Your task to perform on an android device: turn off notifications in google photos Image 0: 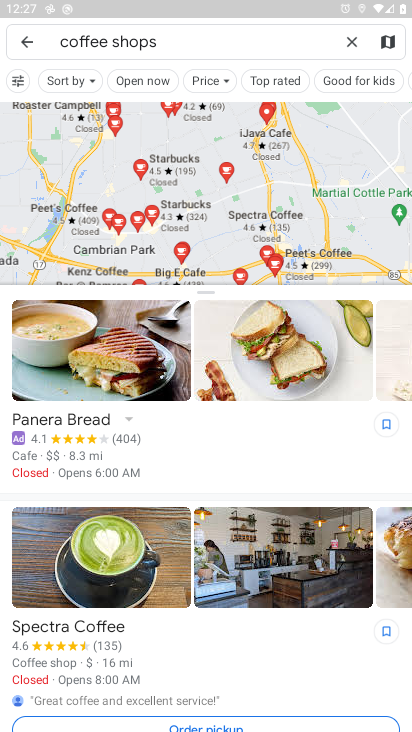
Step 0: press home button
Your task to perform on an android device: turn off notifications in google photos Image 1: 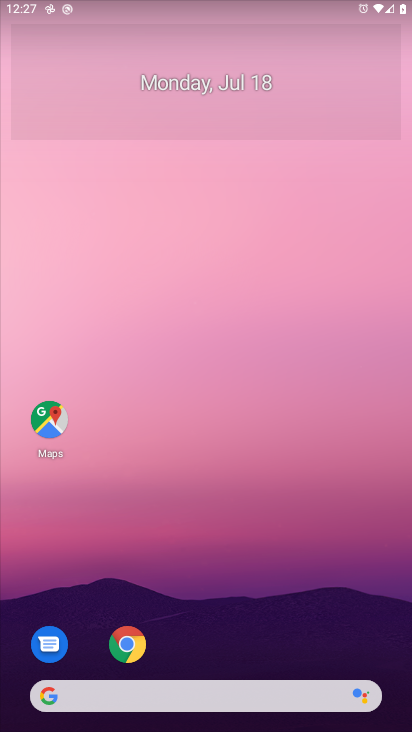
Step 1: drag from (239, 609) to (274, 191)
Your task to perform on an android device: turn off notifications in google photos Image 2: 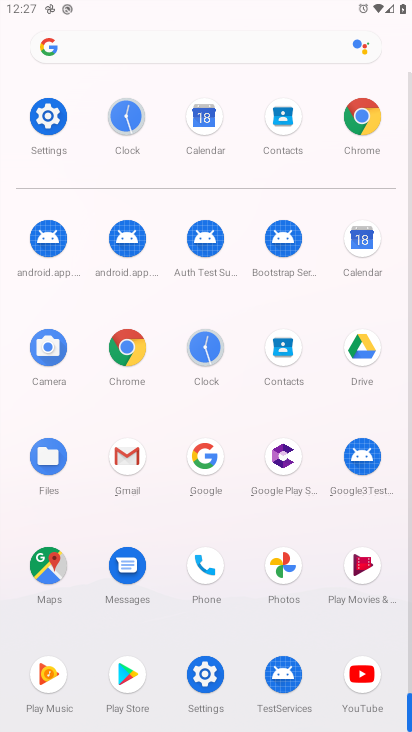
Step 2: click (284, 560)
Your task to perform on an android device: turn off notifications in google photos Image 3: 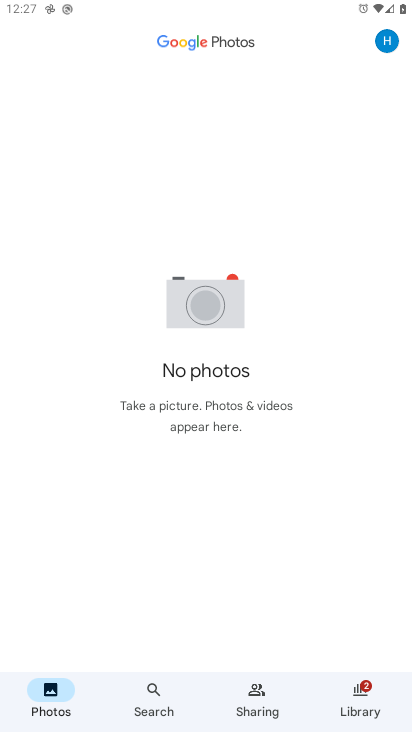
Step 3: click (388, 38)
Your task to perform on an android device: turn off notifications in google photos Image 4: 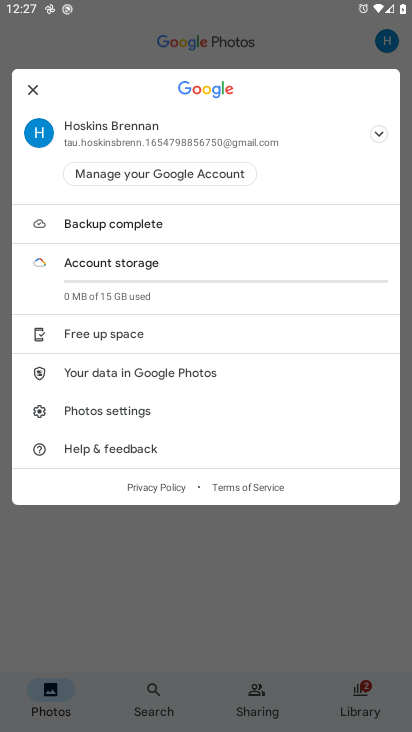
Step 4: click (106, 405)
Your task to perform on an android device: turn off notifications in google photos Image 5: 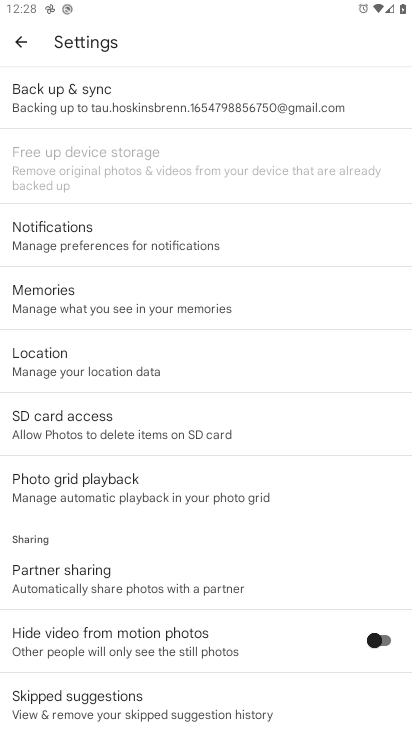
Step 5: click (120, 234)
Your task to perform on an android device: turn off notifications in google photos Image 6: 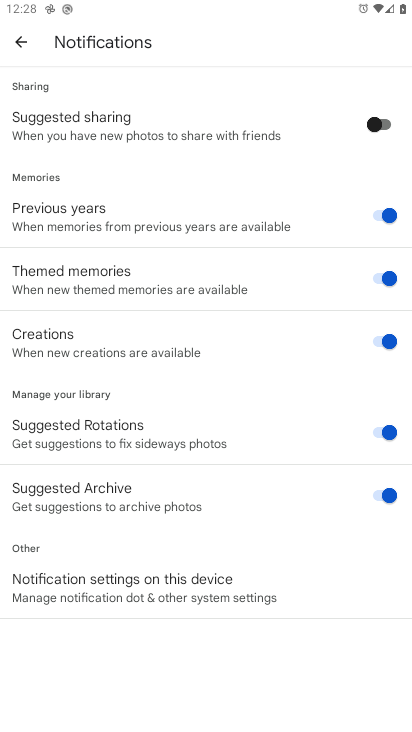
Step 6: click (138, 592)
Your task to perform on an android device: turn off notifications in google photos Image 7: 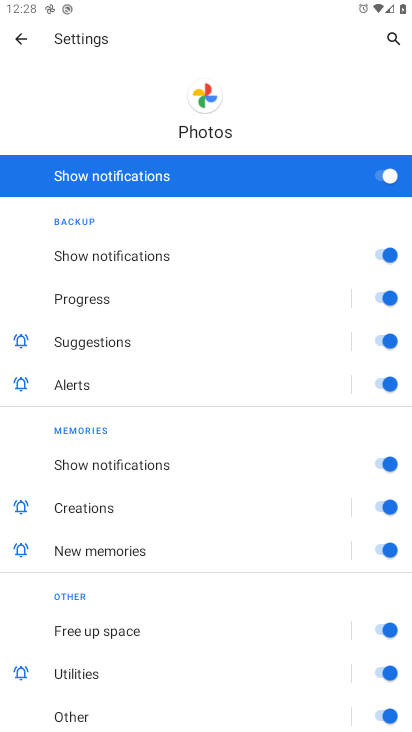
Step 7: click (383, 179)
Your task to perform on an android device: turn off notifications in google photos Image 8: 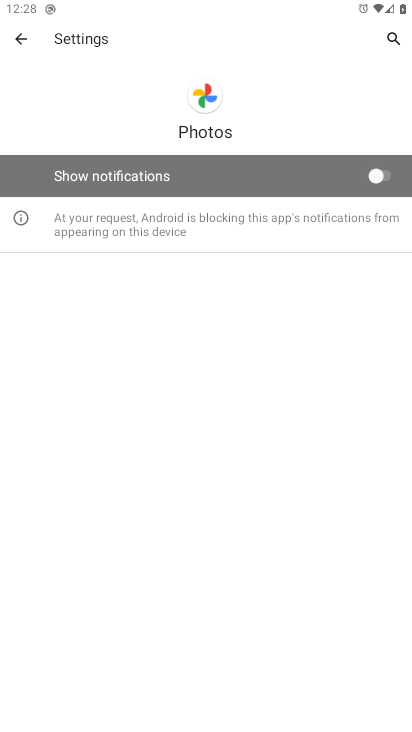
Step 8: task complete